Your task to perform on an android device: find photos in the google photos app Image 0: 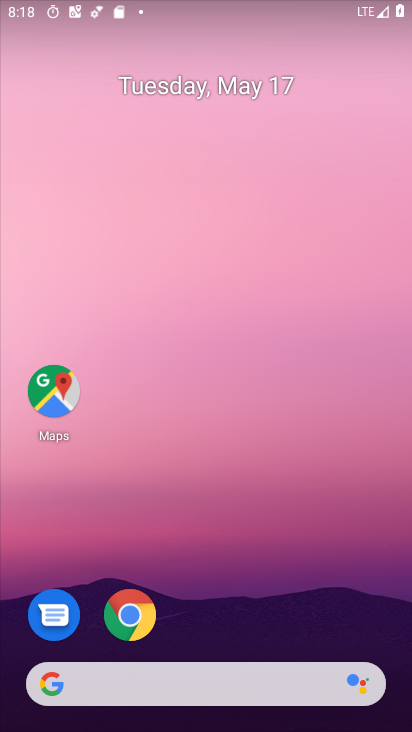
Step 0: drag from (223, 623) to (234, 113)
Your task to perform on an android device: find photos in the google photos app Image 1: 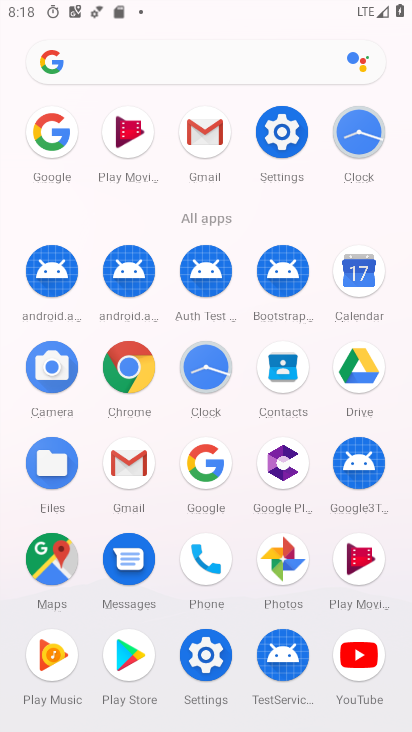
Step 1: click (278, 581)
Your task to perform on an android device: find photos in the google photos app Image 2: 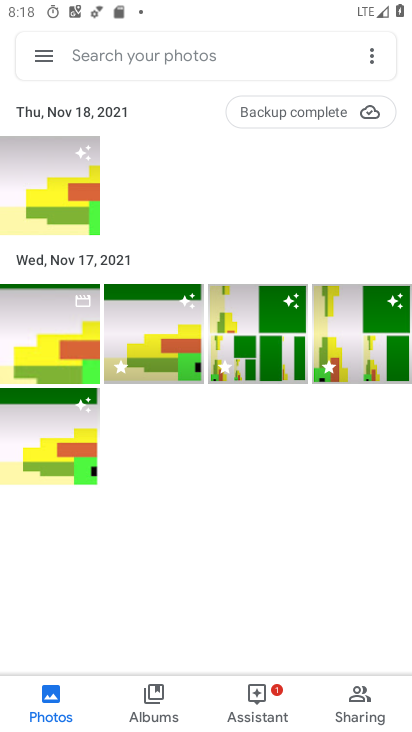
Step 2: task complete